Your task to perform on an android device: open app "File Manager" Image 0: 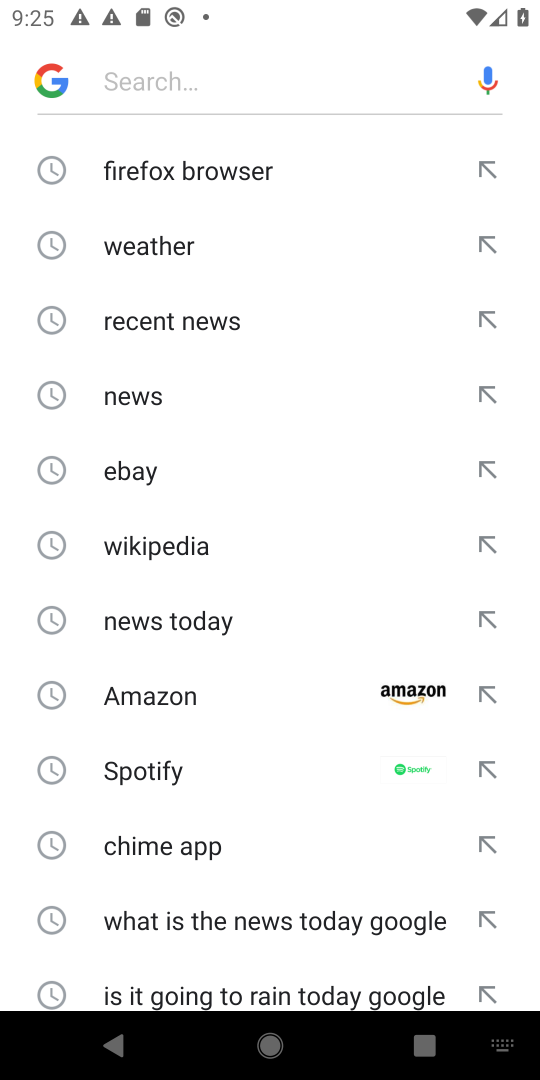
Step 0: press home button
Your task to perform on an android device: open app "File Manager" Image 1: 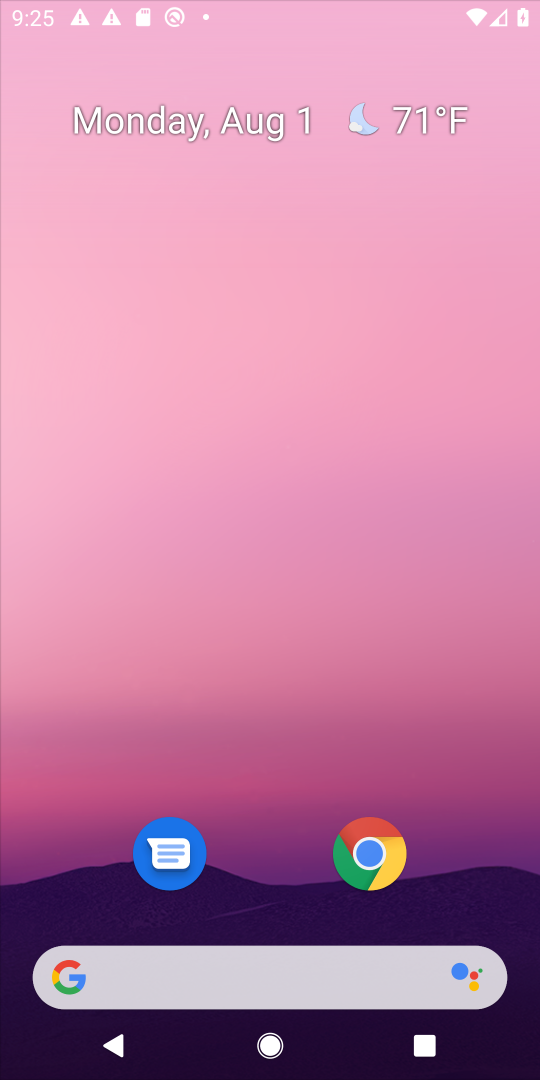
Step 1: drag from (280, 932) to (444, 115)
Your task to perform on an android device: open app "File Manager" Image 2: 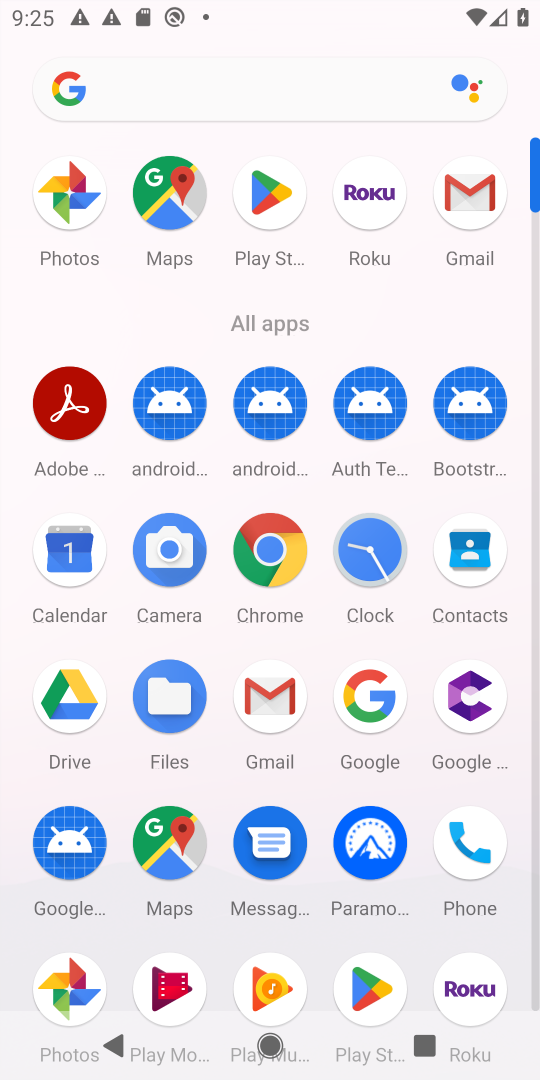
Step 2: click (367, 966)
Your task to perform on an android device: open app "File Manager" Image 3: 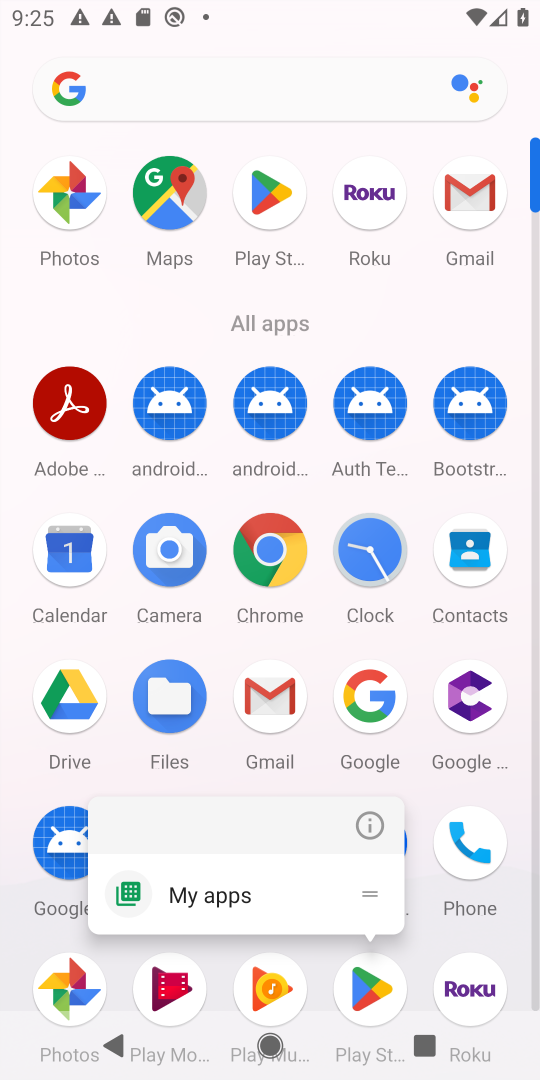
Step 3: click (372, 810)
Your task to perform on an android device: open app "File Manager" Image 4: 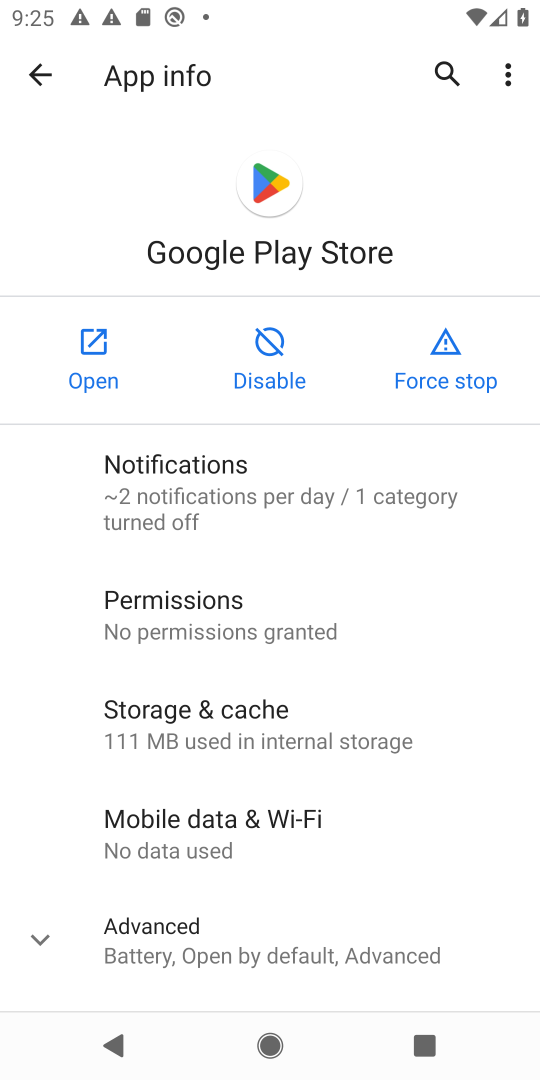
Step 4: click (77, 344)
Your task to perform on an android device: open app "File Manager" Image 5: 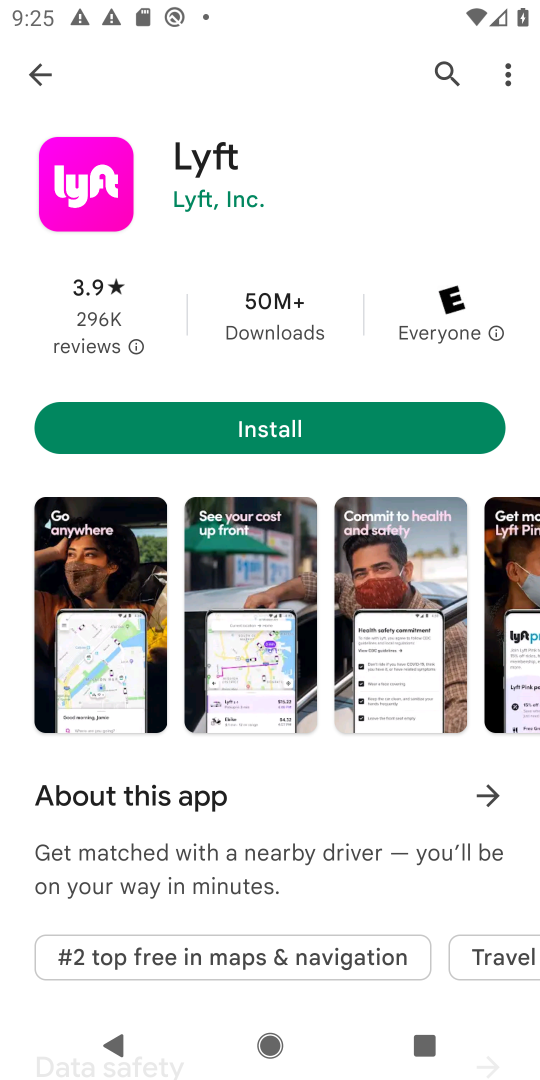
Step 5: drag from (321, 879) to (358, 287)
Your task to perform on an android device: open app "File Manager" Image 6: 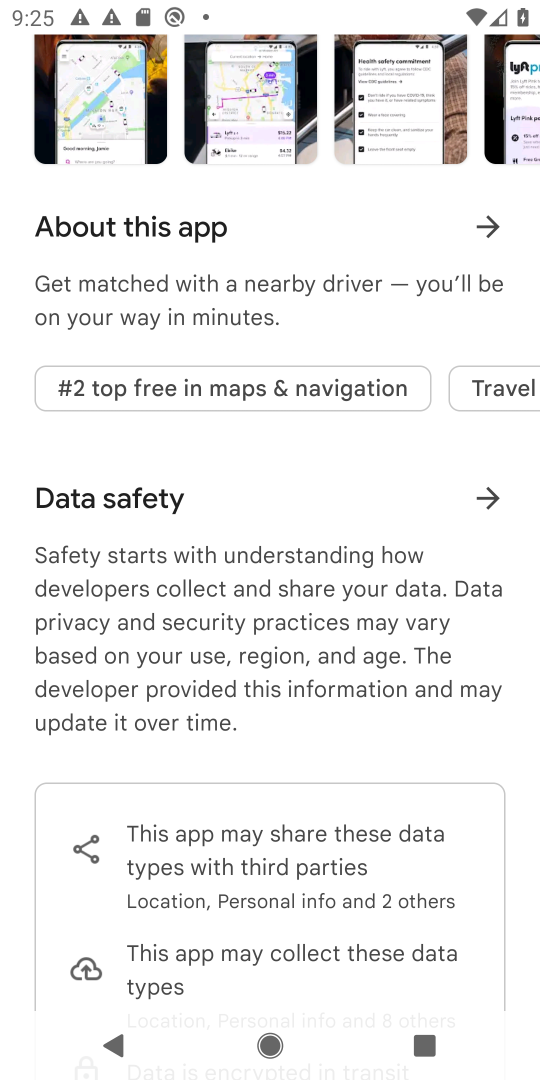
Step 6: drag from (345, 238) to (447, 1064)
Your task to perform on an android device: open app "File Manager" Image 7: 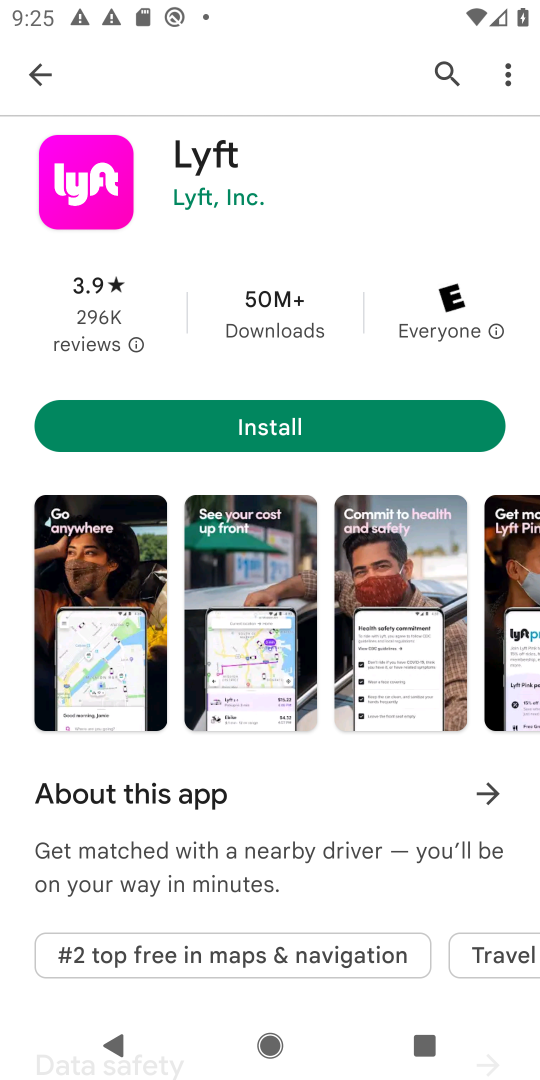
Step 7: click (437, 65)
Your task to perform on an android device: open app "File Manager" Image 8: 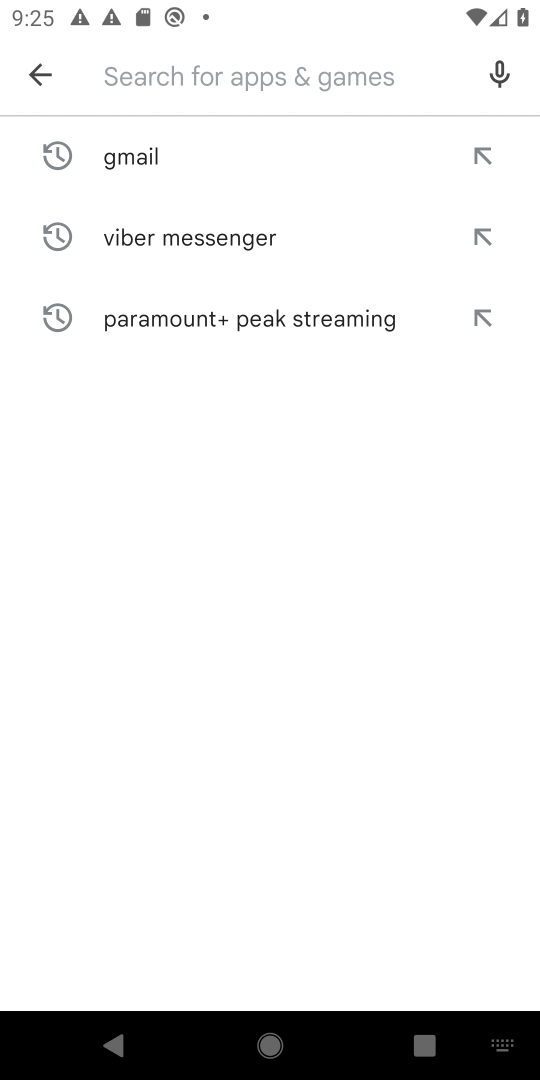
Step 8: type "File Manager"
Your task to perform on an android device: open app "File Manager" Image 9: 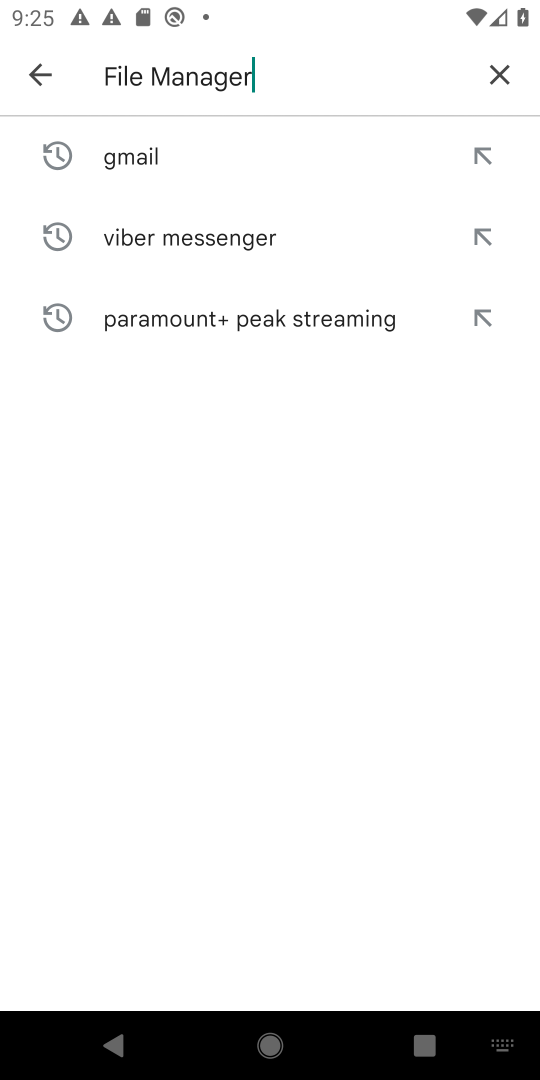
Step 9: type ""
Your task to perform on an android device: open app "File Manager" Image 10: 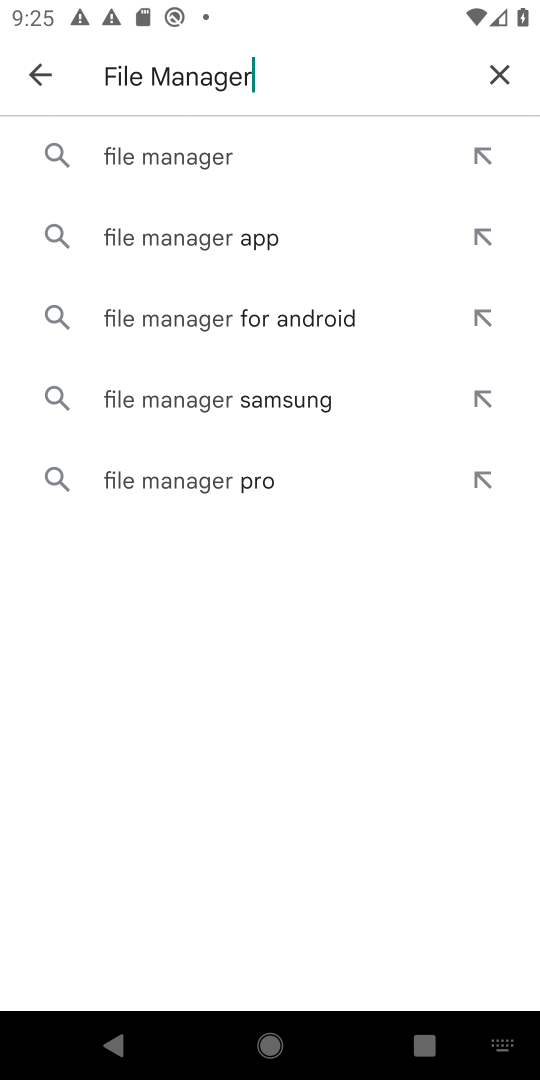
Step 10: click (159, 165)
Your task to perform on an android device: open app "File Manager" Image 11: 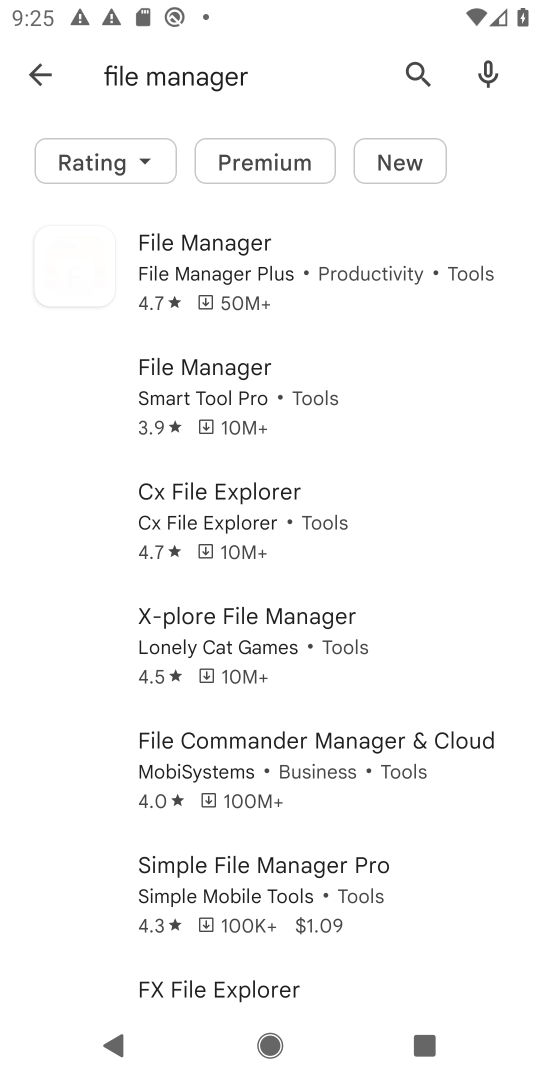
Step 11: drag from (295, 772) to (350, 179)
Your task to perform on an android device: open app "File Manager" Image 12: 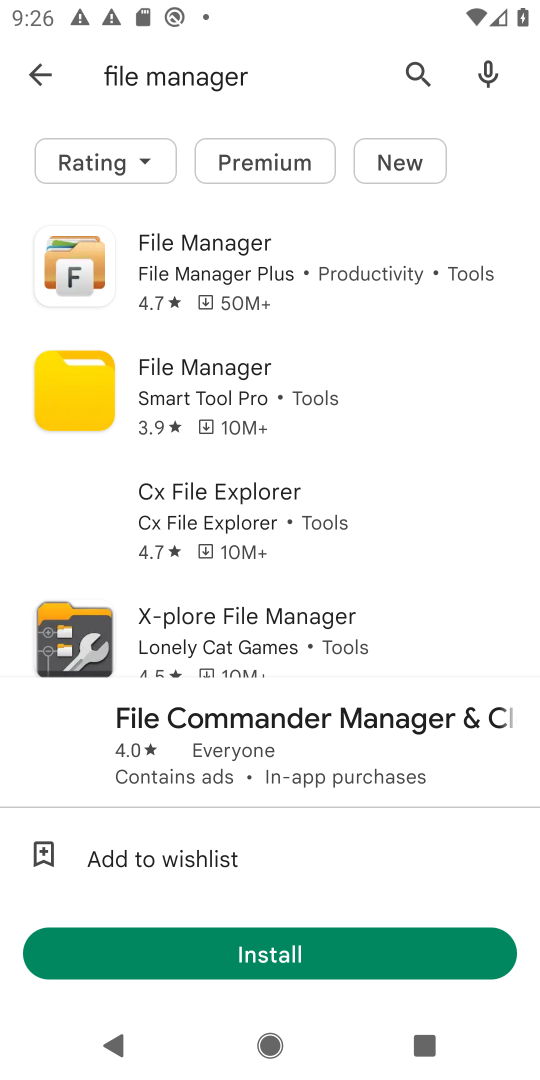
Step 12: drag from (256, 314) to (392, 1067)
Your task to perform on an android device: open app "File Manager" Image 13: 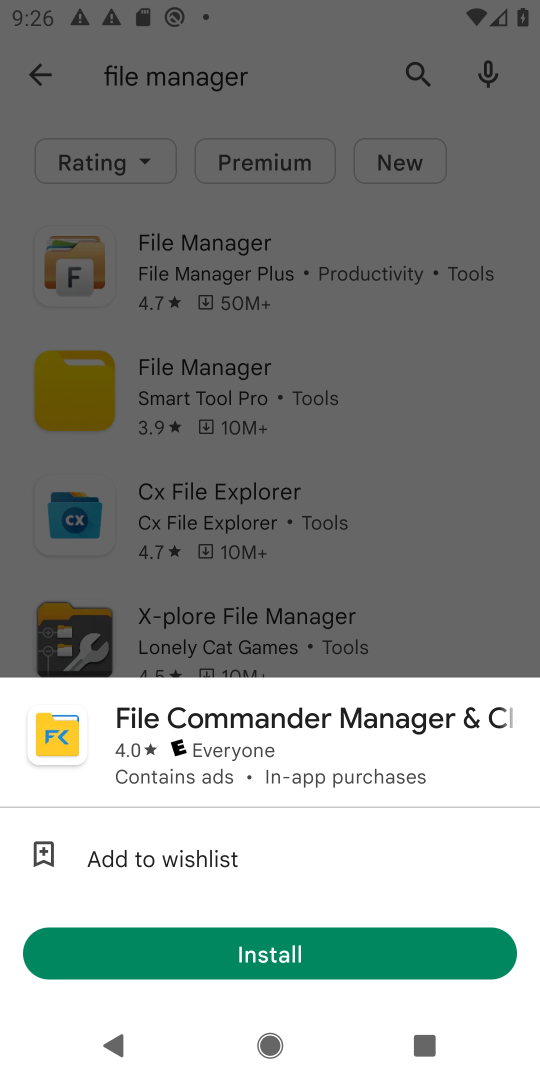
Step 13: click (378, 263)
Your task to perform on an android device: open app "File Manager" Image 14: 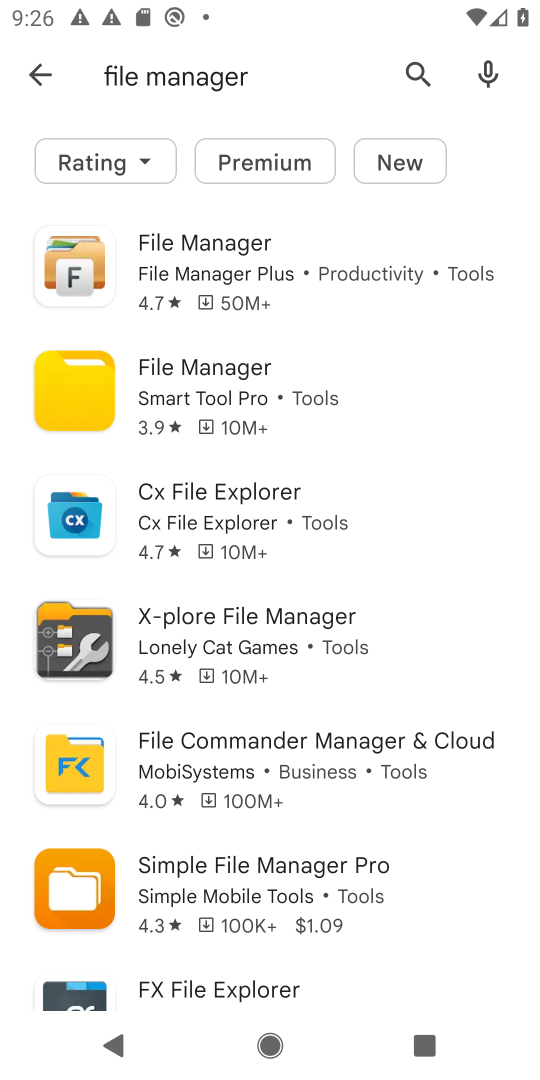
Step 14: click (216, 263)
Your task to perform on an android device: open app "File Manager" Image 15: 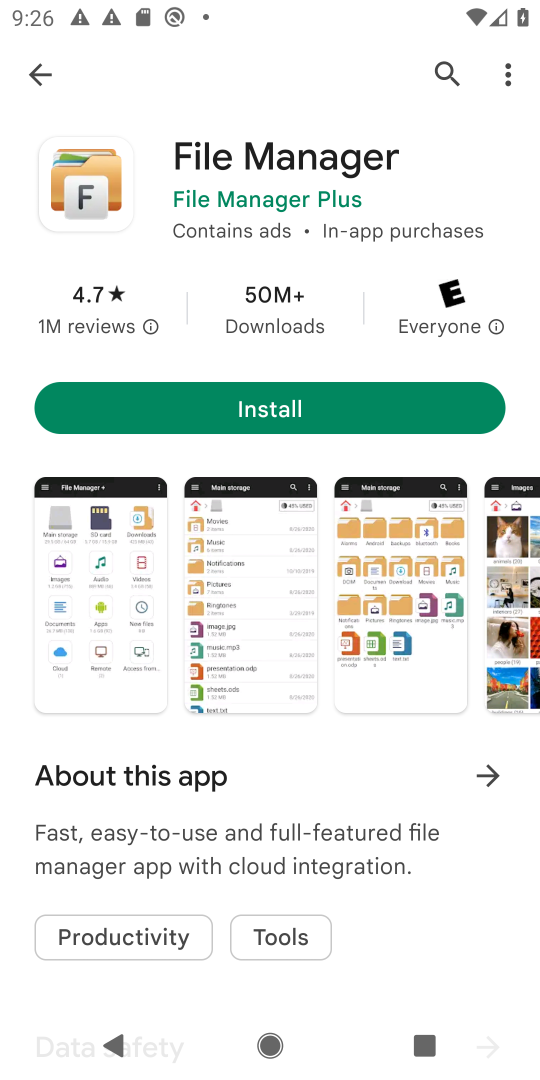
Step 15: task complete